Your task to perform on an android device: allow notifications from all sites in the chrome app Image 0: 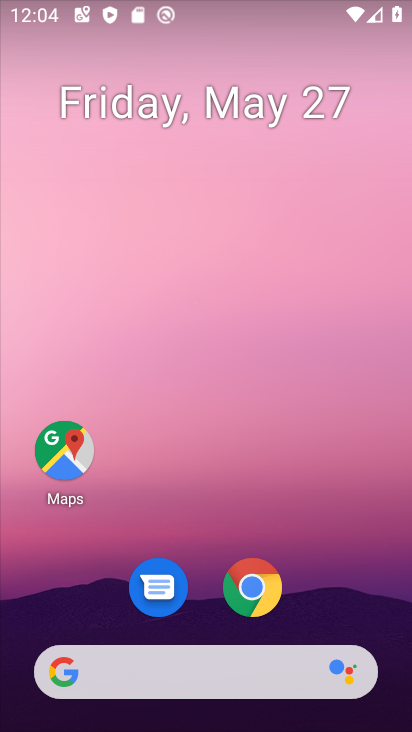
Step 0: click (247, 590)
Your task to perform on an android device: allow notifications from all sites in the chrome app Image 1: 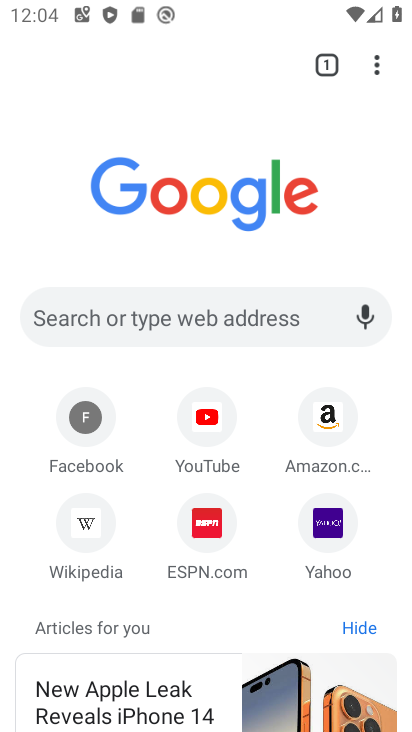
Step 1: click (378, 55)
Your task to perform on an android device: allow notifications from all sites in the chrome app Image 2: 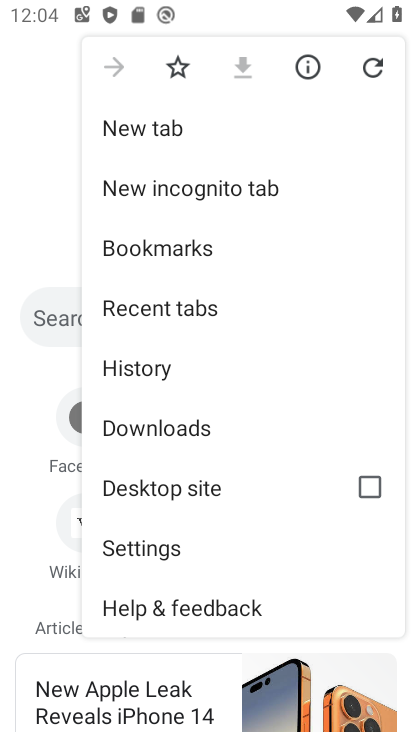
Step 2: click (151, 558)
Your task to perform on an android device: allow notifications from all sites in the chrome app Image 3: 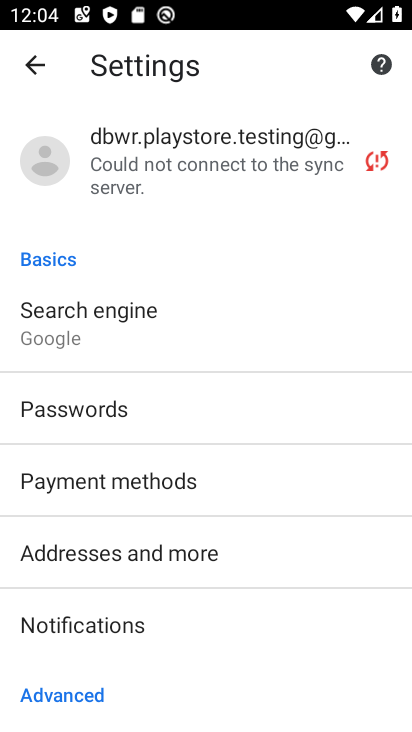
Step 3: drag from (197, 647) to (197, 318)
Your task to perform on an android device: allow notifications from all sites in the chrome app Image 4: 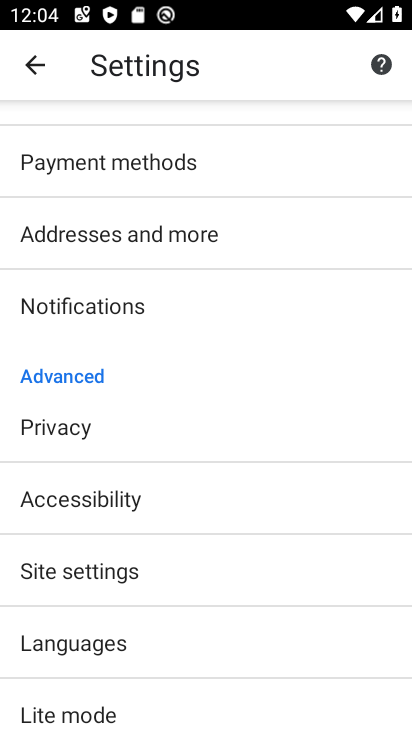
Step 4: click (81, 308)
Your task to perform on an android device: allow notifications from all sites in the chrome app Image 5: 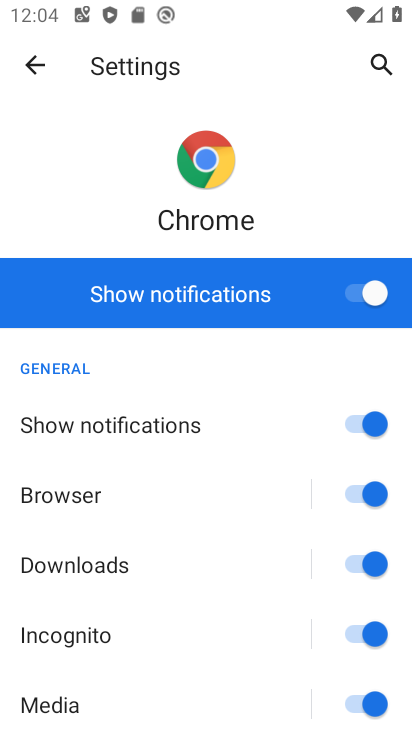
Step 5: drag from (208, 649) to (204, 281)
Your task to perform on an android device: allow notifications from all sites in the chrome app Image 6: 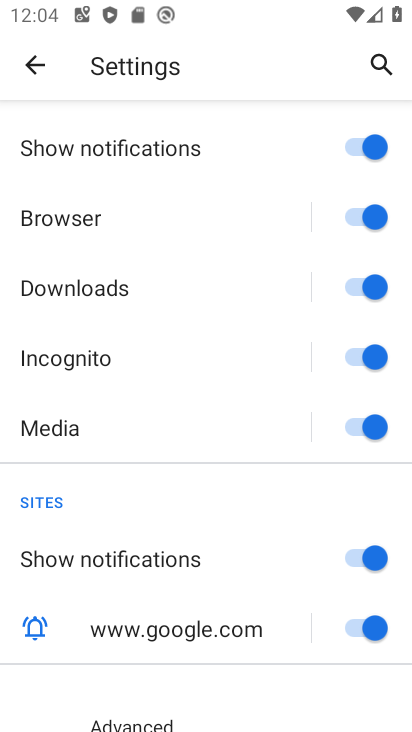
Step 6: drag from (231, 671) to (258, 273)
Your task to perform on an android device: allow notifications from all sites in the chrome app Image 7: 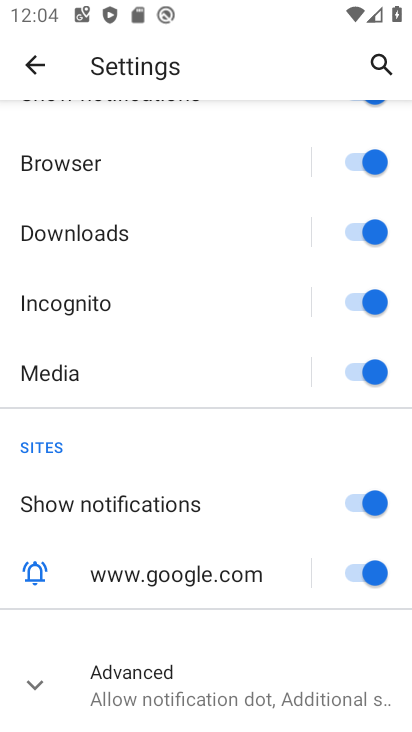
Step 7: click (203, 704)
Your task to perform on an android device: allow notifications from all sites in the chrome app Image 8: 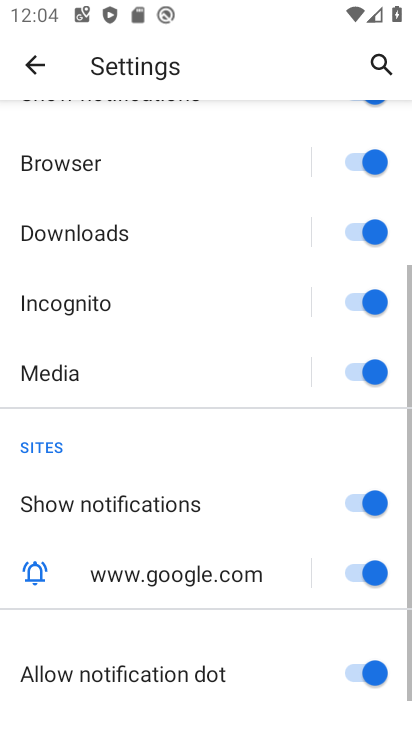
Step 8: drag from (212, 692) to (223, 305)
Your task to perform on an android device: allow notifications from all sites in the chrome app Image 9: 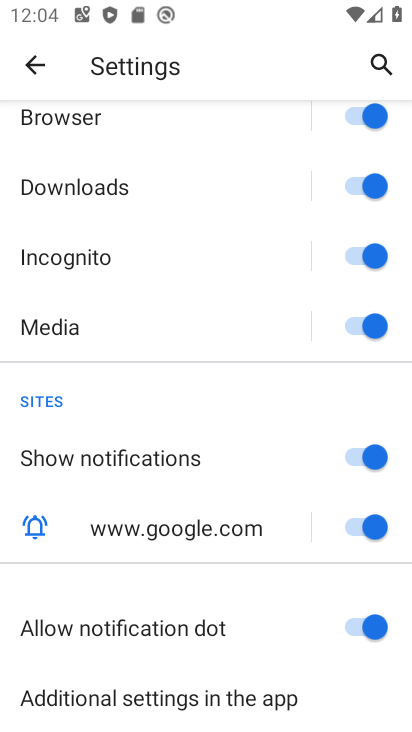
Step 9: click (274, 705)
Your task to perform on an android device: allow notifications from all sites in the chrome app Image 10: 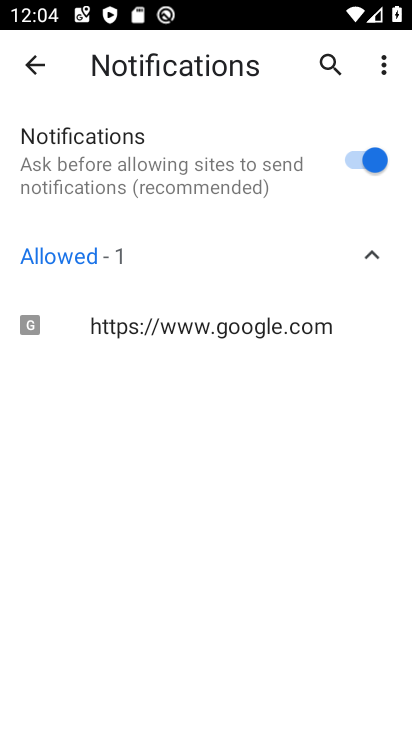
Step 10: task complete